Your task to perform on an android device: Open sound settings Image 0: 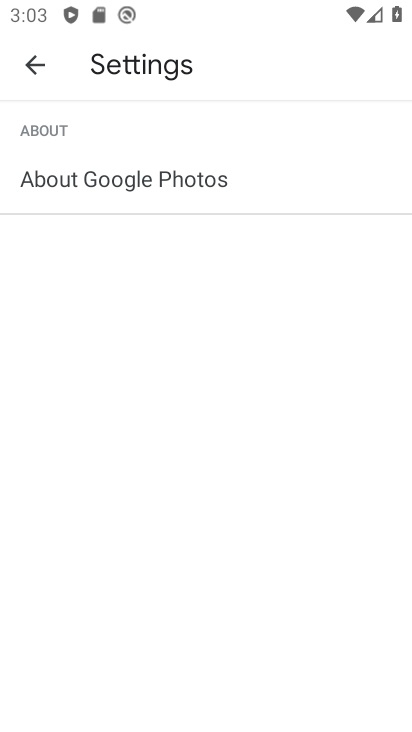
Step 0: press home button
Your task to perform on an android device: Open sound settings Image 1: 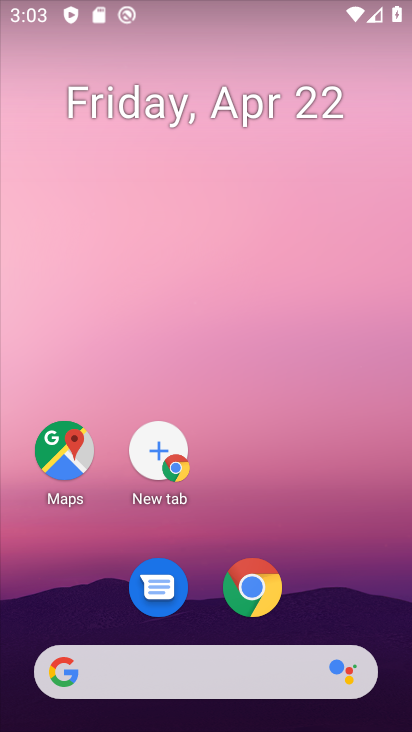
Step 1: drag from (220, 530) to (227, 7)
Your task to perform on an android device: Open sound settings Image 2: 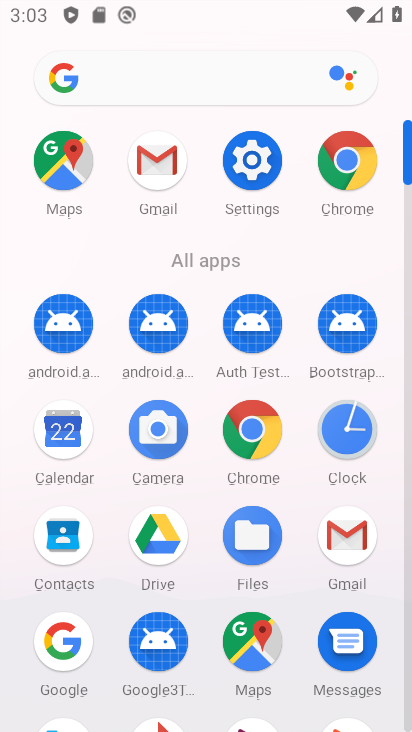
Step 2: click (262, 228)
Your task to perform on an android device: Open sound settings Image 3: 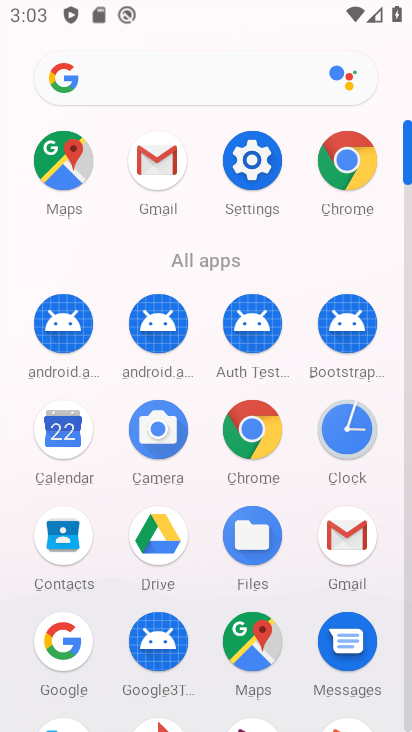
Step 3: click (256, 176)
Your task to perform on an android device: Open sound settings Image 4: 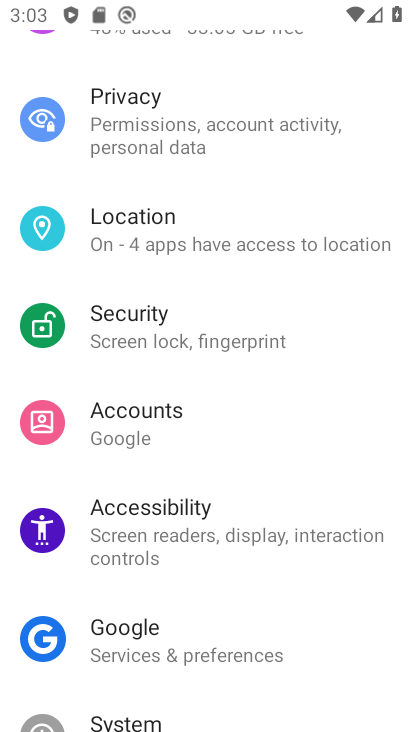
Step 4: drag from (148, 581) to (124, 183)
Your task to perform on an android device: Open sound settings Image 5: 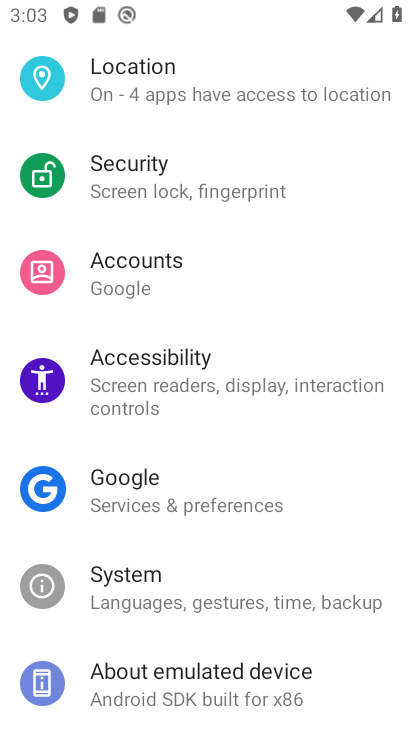
Step 5: drag from (199, 182) to (243, 608)
Your task to perform on an android device: Open sound settings Image 6: 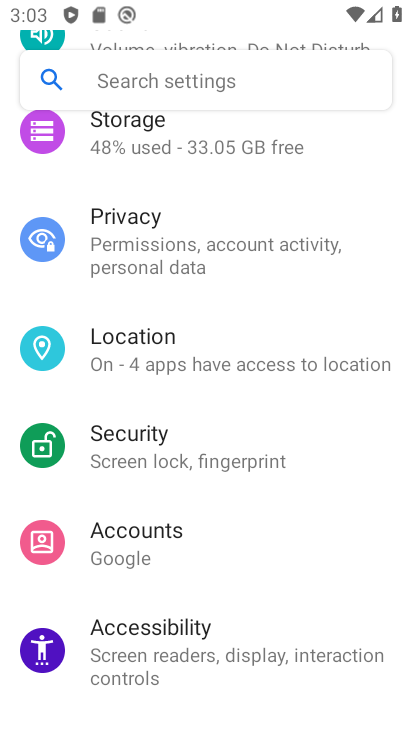
Step 6: drag from (156, 176) to (225, 618)
Your task to perform on an android device: Open sound settings Image 7: 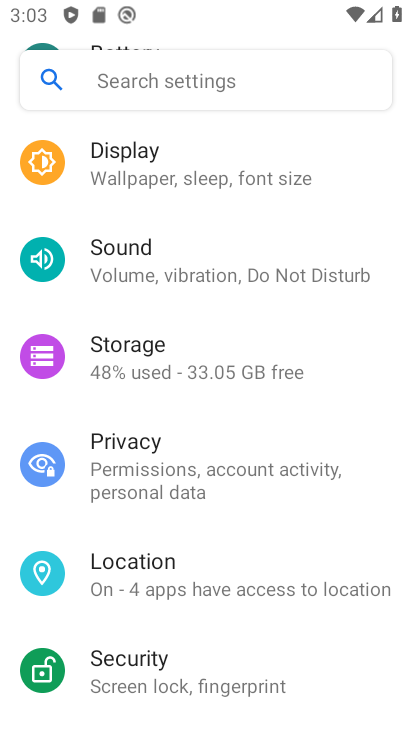
Step 7: click (181, 257)
Your task to perform on an android device: Open sound settings Image 8: 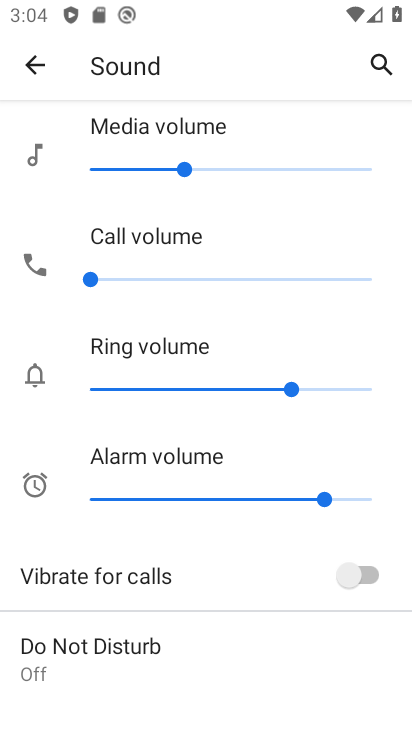
Step 8: task complete